Your task to perform on an android device: toggle translation in the chrome app Image 0: 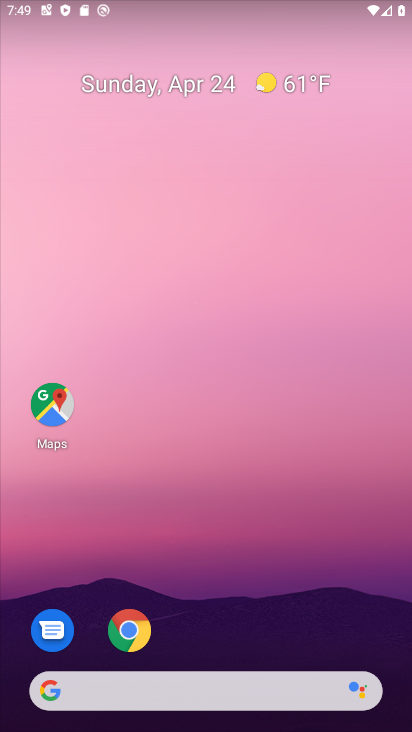
Step 0: drag from (357, 610) to (404, 461)
Your task to perform on an android device: toggle translation in the chrome app Image 1: 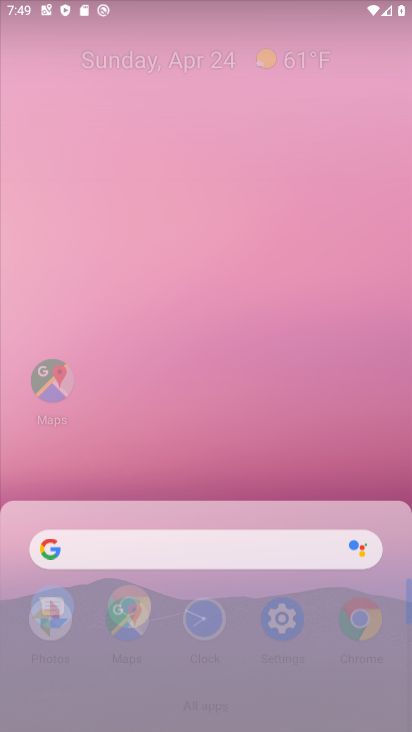
Step 1: drag from (335, 449) to (290, 17)
Your task to perform on an android device: toggle translation in the chrome app Image 2: 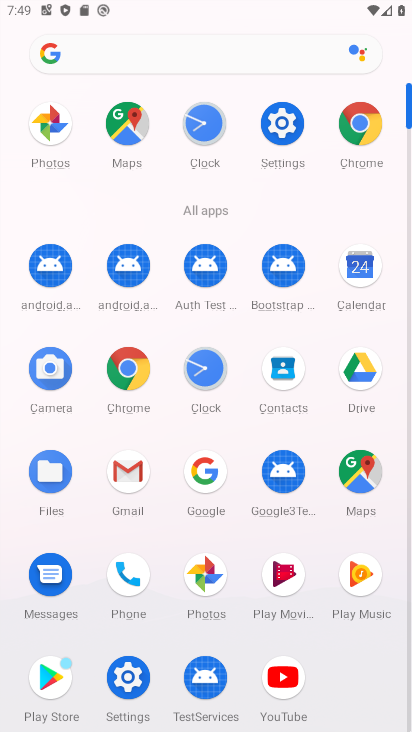
Step 2: click (355, 135)
Your task to perform on an android device: toggle translation in the chrome app Image 3: 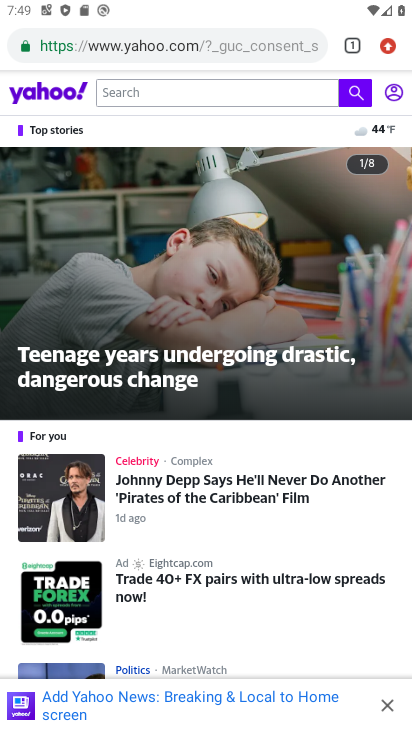
Step 3: click (386, 42)
Your task to perform on an android device: toggle translation in the chrome app Image 4: 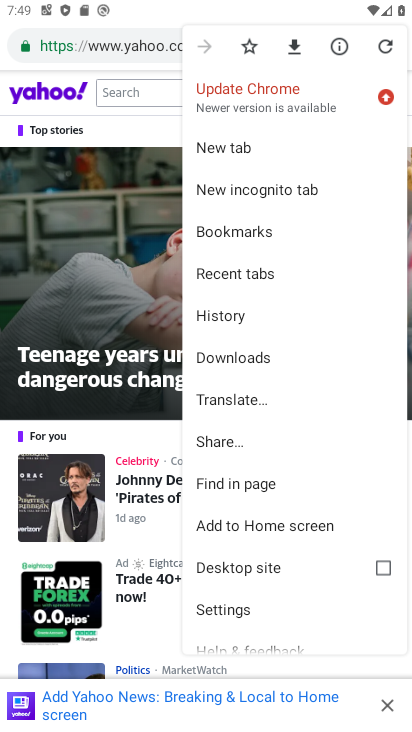
Step 4: click (231, 614)
Your task to perform on an android device: toggle translation in the chrome app Image 5: 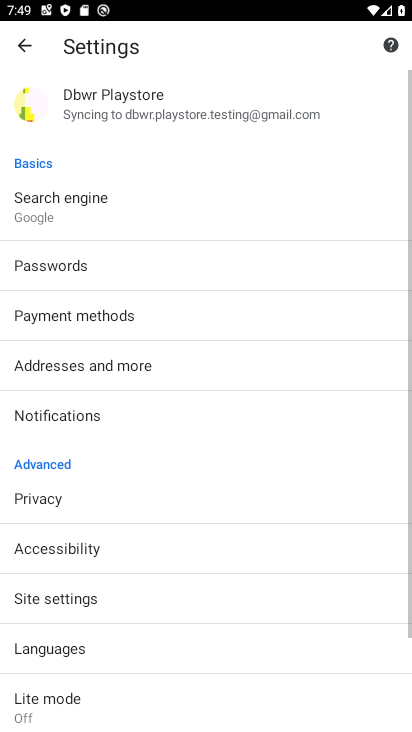
Step 5: drag from (308, 596) to (320, 425)
Your task to perform on an android device: toggle translation in the chrome app Image 6: 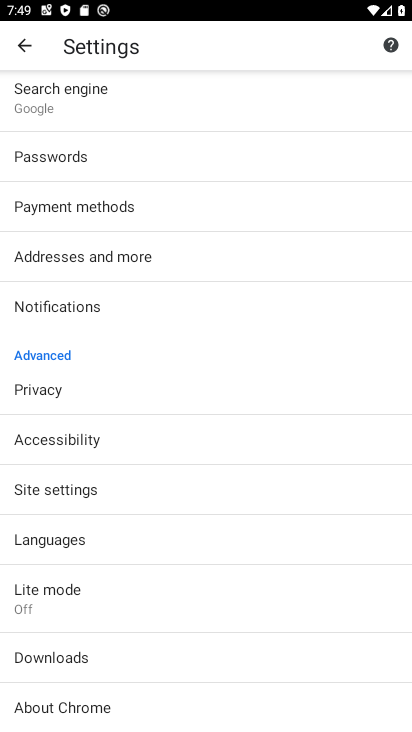
Step 6: drag from (341, 641) to (303, 402)
Your task to perform on an android device: toggle translation in the chrome app Image 7: 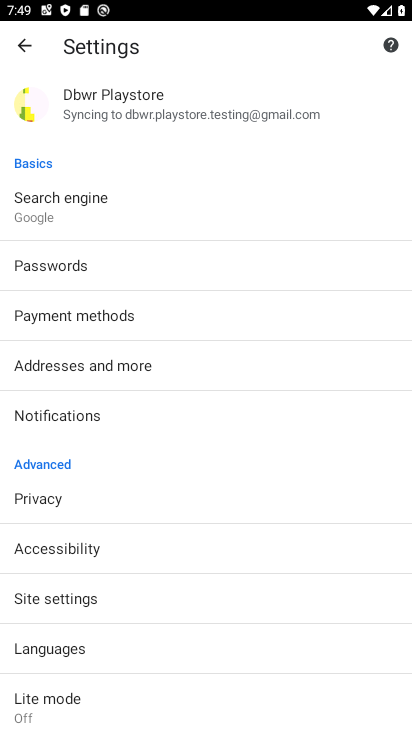
Step 7: drag from (303, 237) to (319, 423)
Your task to perform on an android device: toggle translation in the chrome app Image 8: 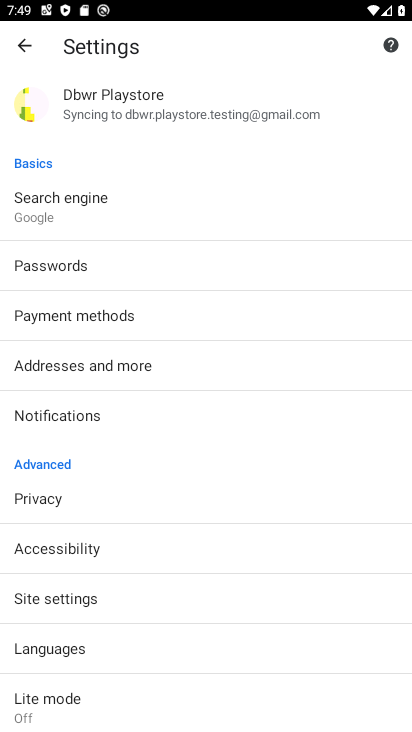
Step 8: drag from (302, 609) to (300, 473)
Your task to perform on an android device: toggle translation in the chrome app Image 9: 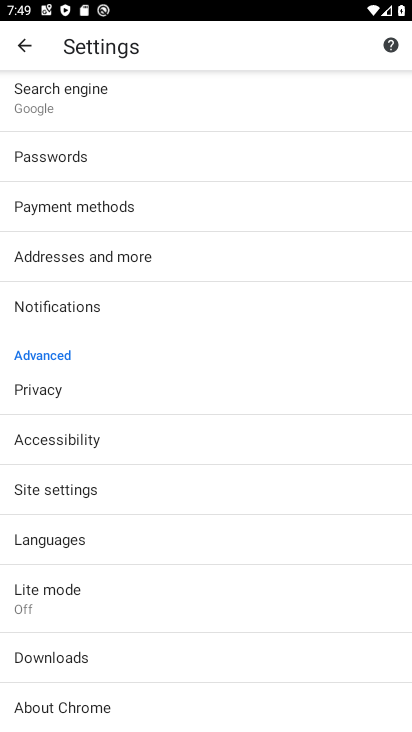
Step 9: click (268, 539)
Your task to perform on an android device: toggle translation in the chrome app Image 10: 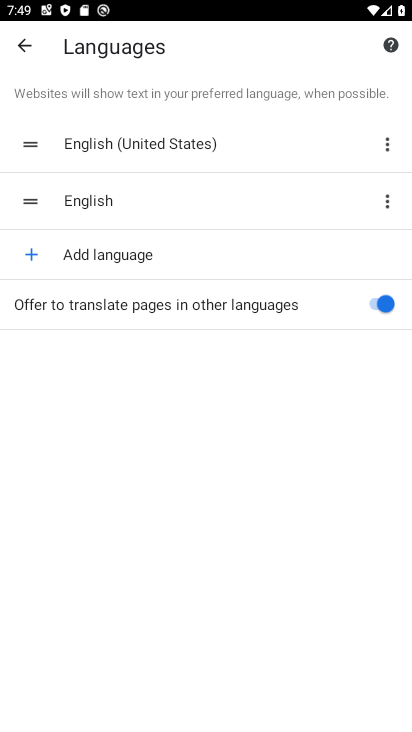
Step 10: click (371, 299)
Your task to perform on an android device: toggle translation in the chrome app Image 11: 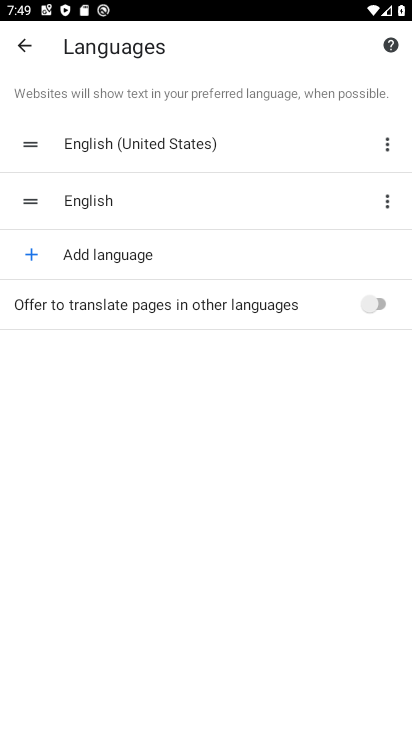
Step 11: task complete